Your task to perform on an android device: turn on bluetooth scan Image 0: 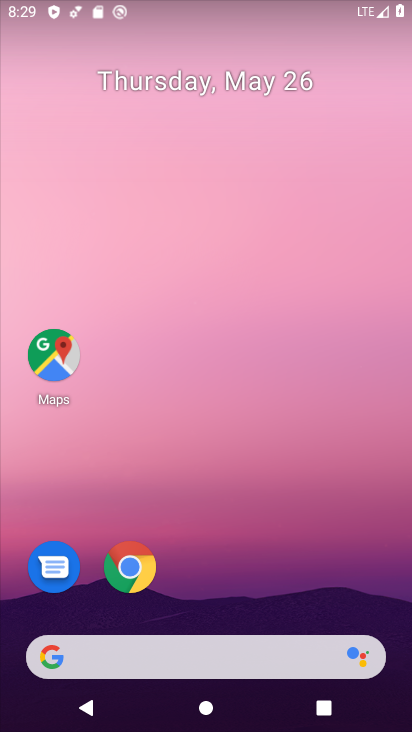
Step 0: drag from (275, 661) to (230, 80)
Your task to perform on an android device: turn on bluetooth scan Image 1: 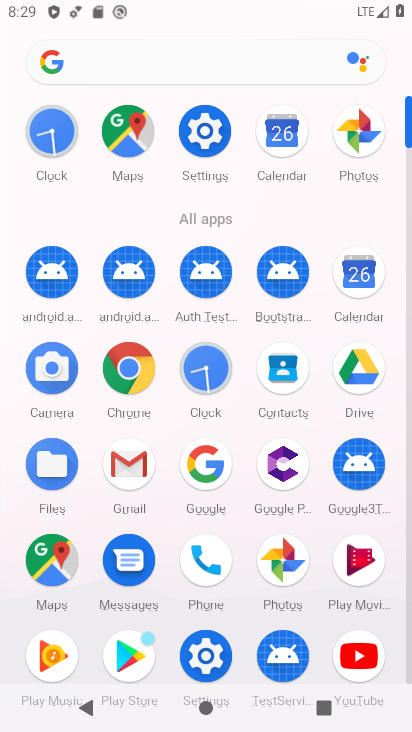
Step 1: click (210, 119)
Your task to perform on an android device: turn on bluetooth scan Image 2: 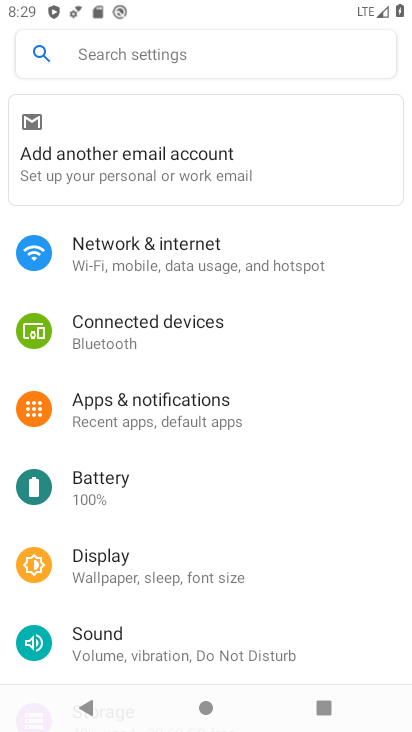
Step 2: drag from (185, 561) to (112, 80)
Your task to perform on an android device: turn on bluetooth scan Image 3: 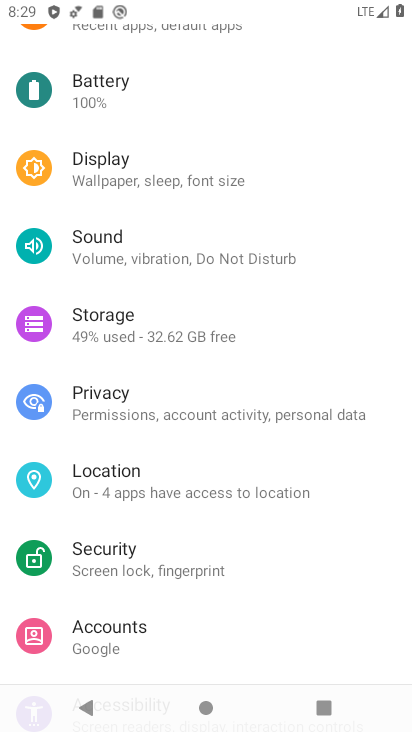
Step 3: click (143, 496)
Your task to perform on an android device: turn on bluetooth scan Image 4: 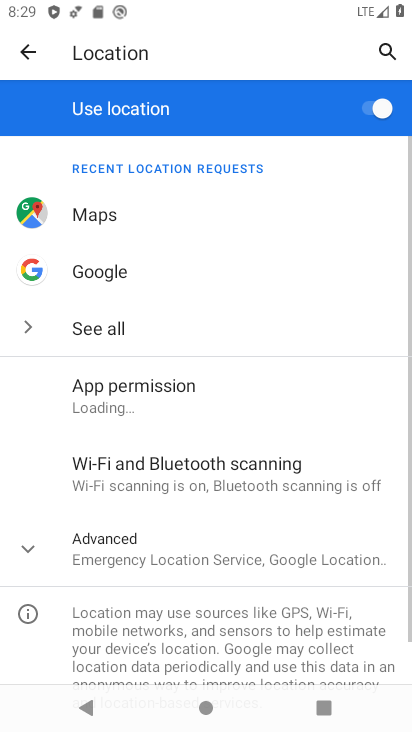
Step 4: click (264, 470)
Your task to perform on an android device: turn on bluetooth scan Image 5: 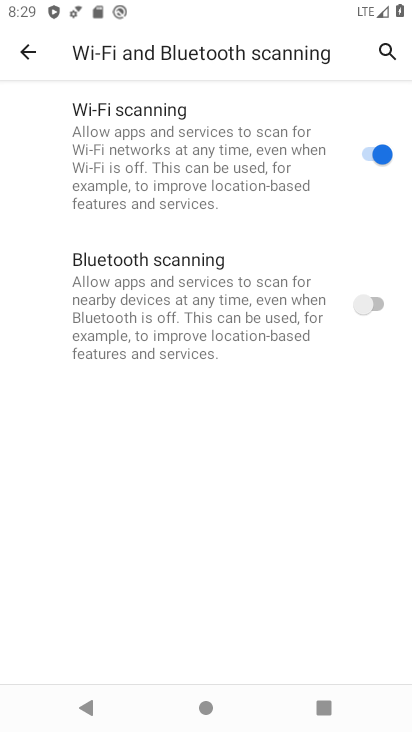
Step 5: click (374, 300)
Your task to perform on an android device: turn on bluetooth scan Image 6: 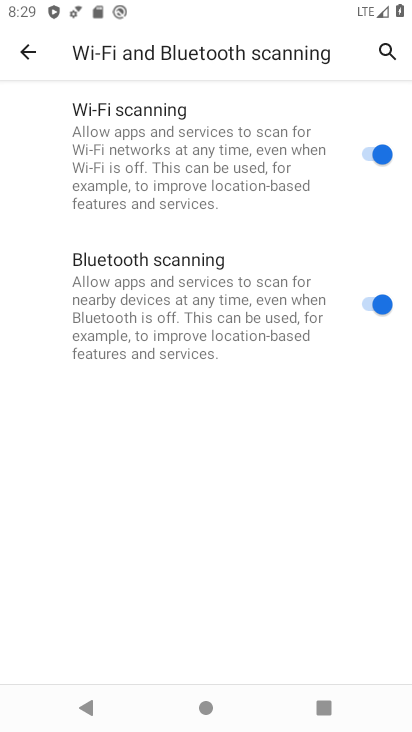
Step 6: task complete